Your task to perform on an android device: Open calendar and show me the fourth week of next month Image 0: 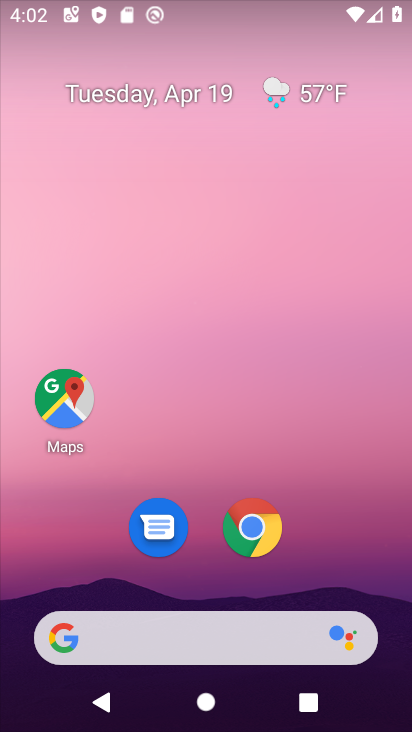
Step 0: drag from (400, 630) to (337, 243)
Your task to perform on an android device: Open calendar and show me the fourth week of next month Image 1: 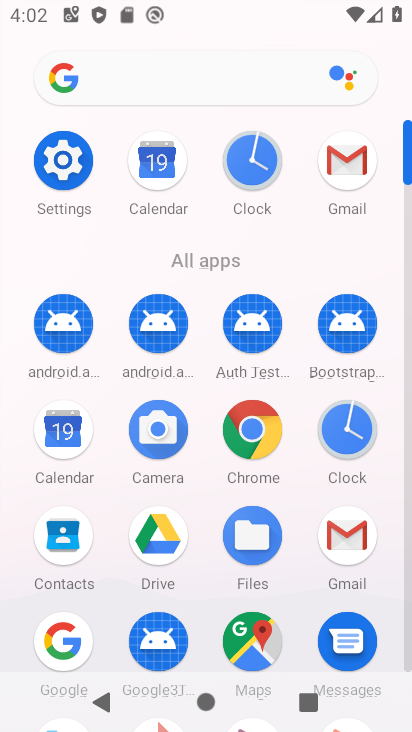
Step 1: click (405, 661)
Your task to perform on an android device: Open calendar and show me the fourth week of next month Image 2: 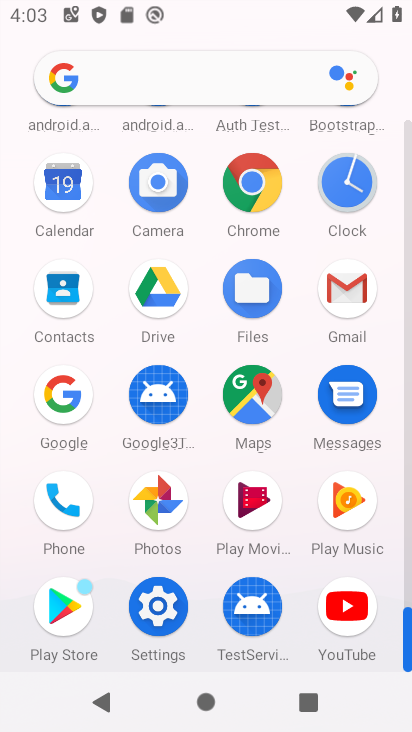
Step 2: click (59, 185)
Your task to perform on an android device: Open calendar and show me the fourth week of next month Image 3: 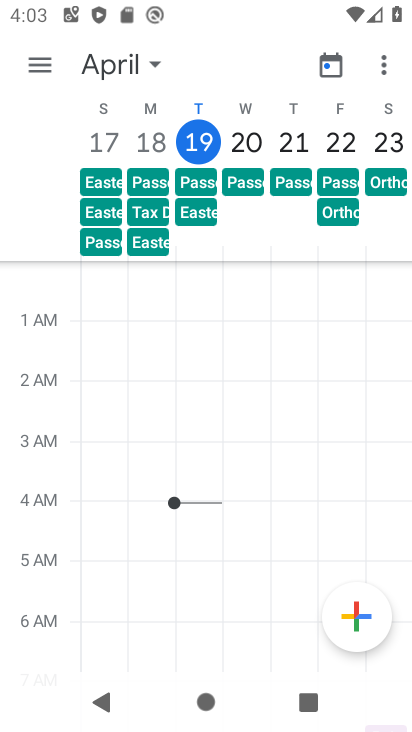
Step 3: click (146, 68)
Your task to perform on an android device: Open calendar and show me the fourth week of next month Image 4: 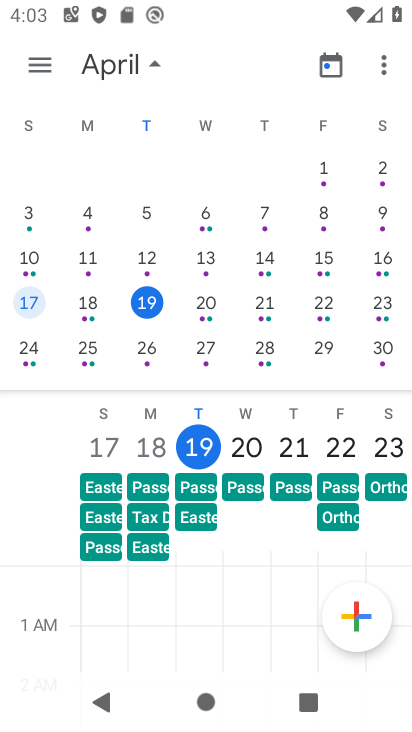
Step 4: drag from (367, 274) to (109, 326)
Your task to perform on an android device: Open calendar and show me the fourth week of next month Image 5: 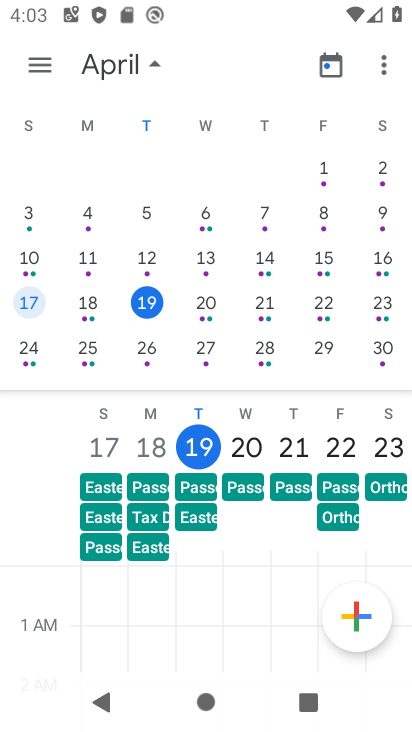
Step 5: drag from (380, 279) to (23, 278)
Your task to perform on an android device: Open calendar and show me the fourth week of next month Image 6: 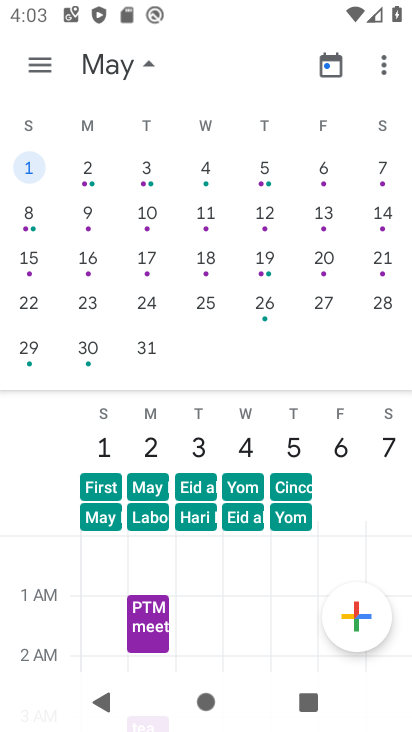
Step 6: click (25, 305)
Your task to perform on an android device: Open calendar and show me the fourth week of next month Image 7: 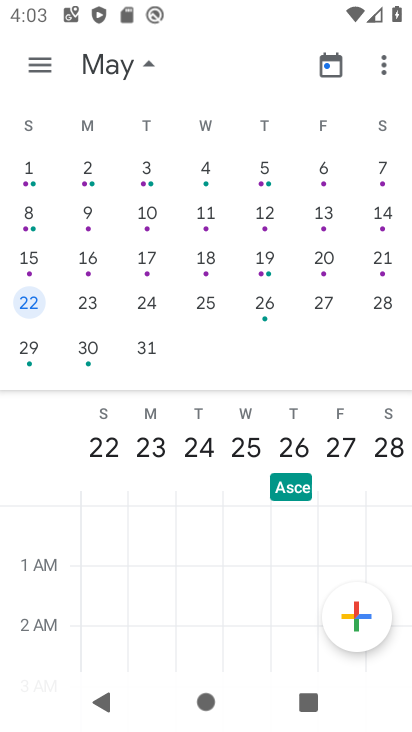
Step 7: task complete